Your task to perform on an android device: Open maps Image 0: 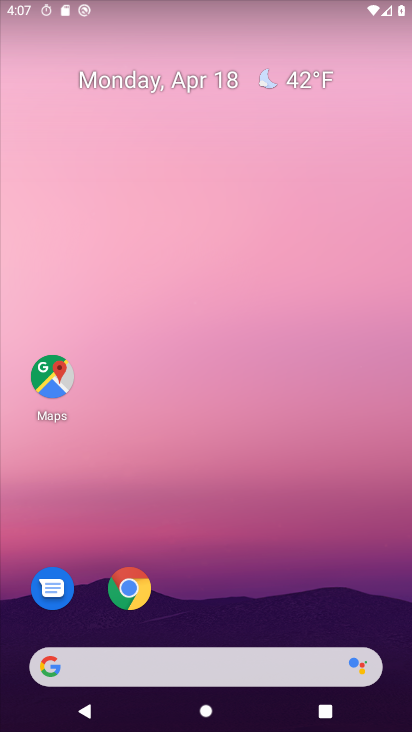
Step 0: click (139, 605)
Your task to perform on an android device: Open maps Image 1: 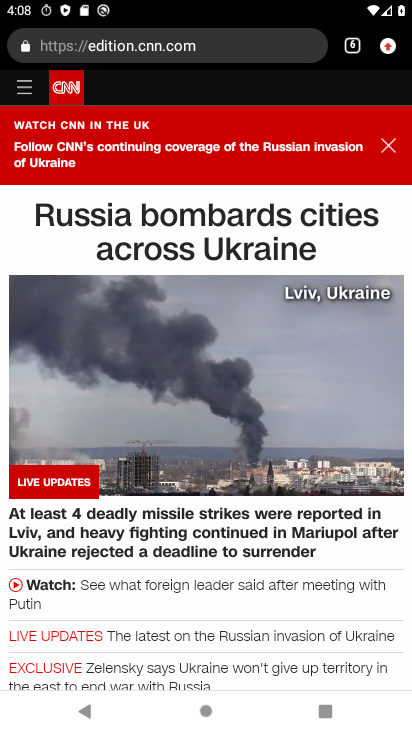
Step 1: task complete